Your task to perform on an android device: Open the calendar and show me this week's events? Image 0: 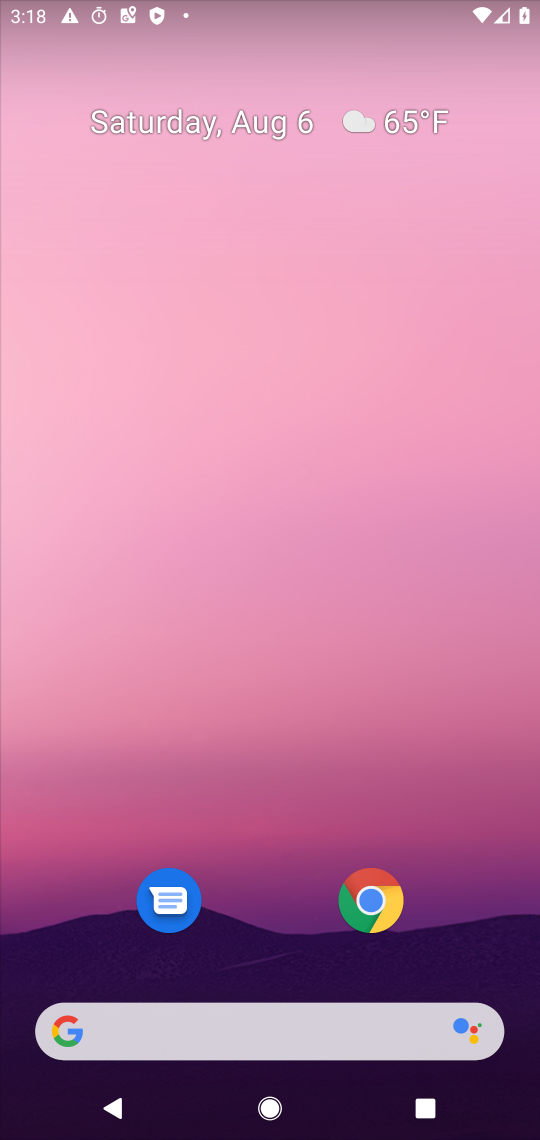
Step 0: press home button
Your task to perform on an android device: Open the calendar and show me this week's events? Image 1: 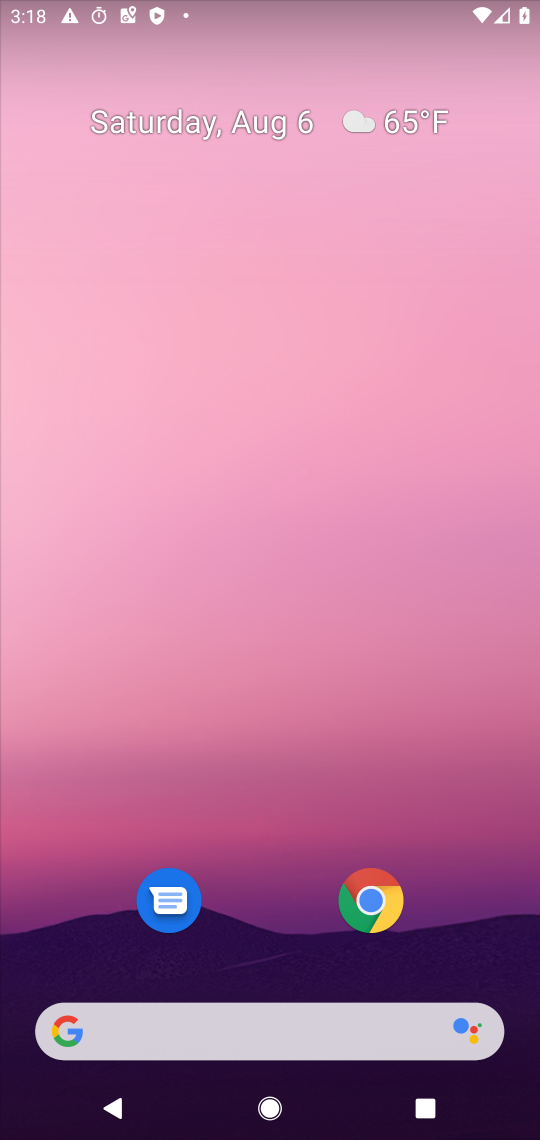
Step 1: press home button
Your task to perform on an android device: Open the calendar and show me this week's events? Image 2: 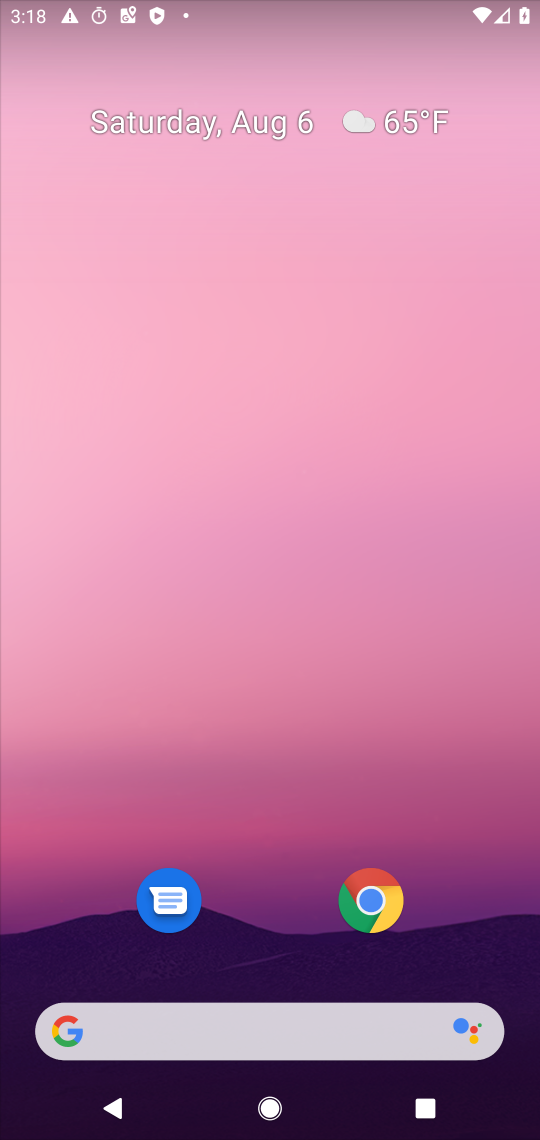
Step 2: drag from (248, 894) to (332, 77)
Your task to perform on an android device: Open the calendar and show me this week's events? Image 3: 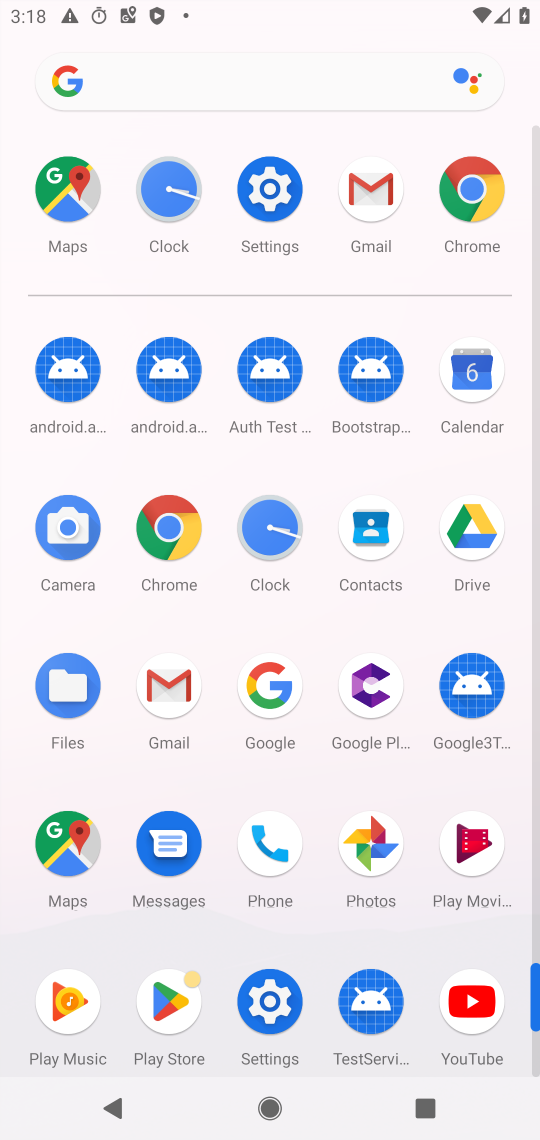
Step 3: click (467, 359)
Your task to perform on an android device: Open the calendar and show me this week's events? Image 4: 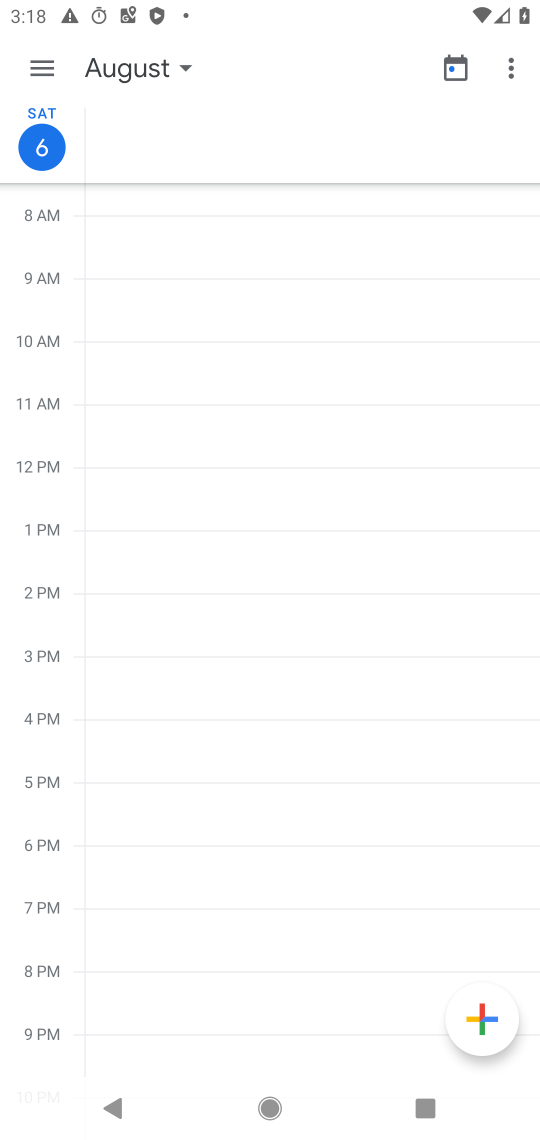
Step 4: click (48, 72)
Your task to perform on an android device: Open the calendar and show me this week's events? Image 5: 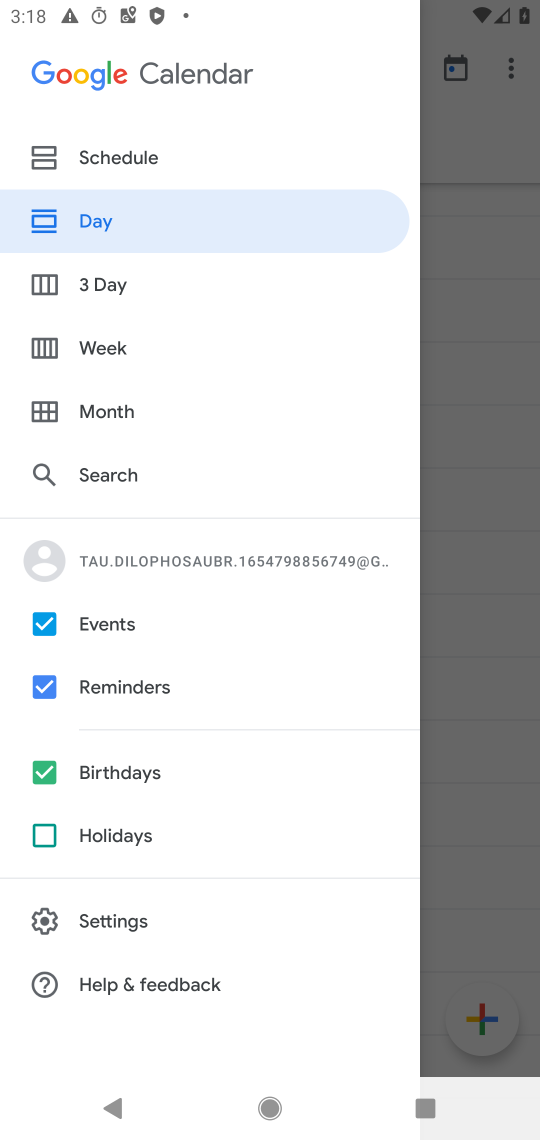
Step 5: click (96, 349)
Your task to perform on an android device: Open the calendar and show me this week's events? Image 6: 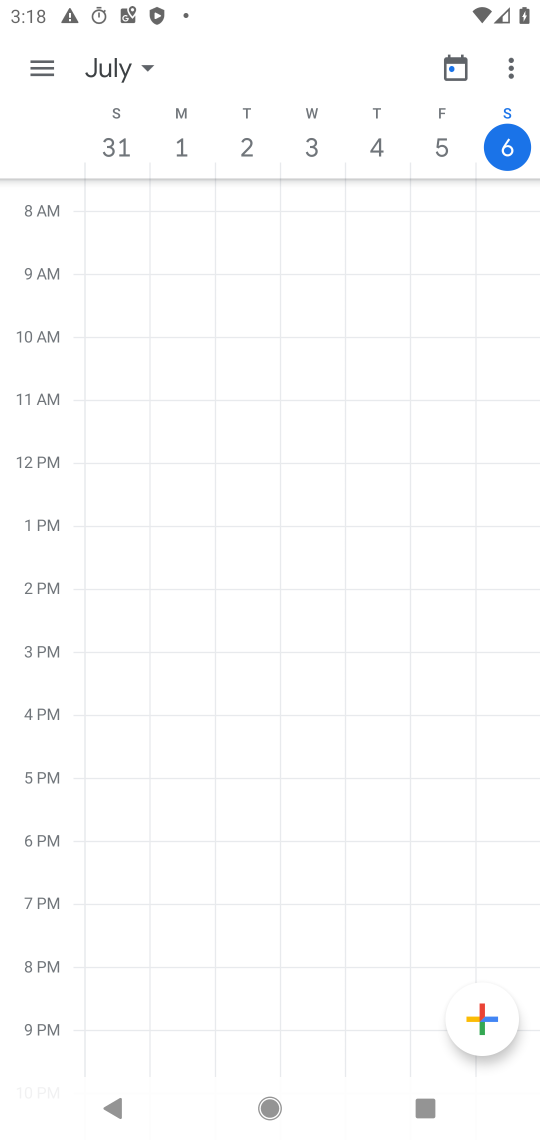
Step 6: task complete